Your task to perform on an android device: Open ESPN.com Image 0: 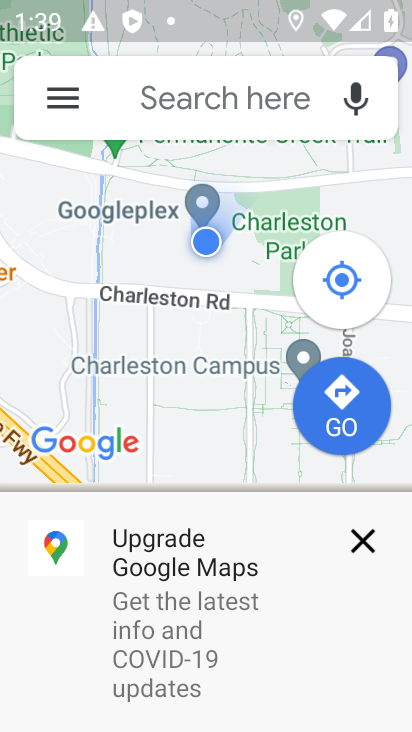
Step 0: press home button
Your task to perform on an android device: Open ESPN.com Image 1: 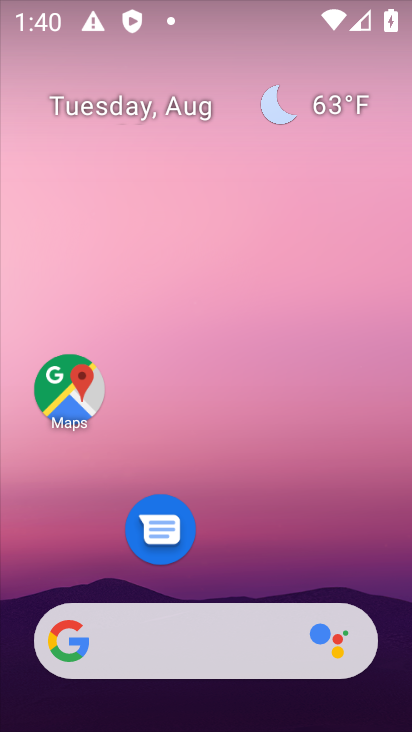
Step 1: drag from (297, 563) to (292, 16)
Your task to perform on an android device: Open ESPN.com Image 2: 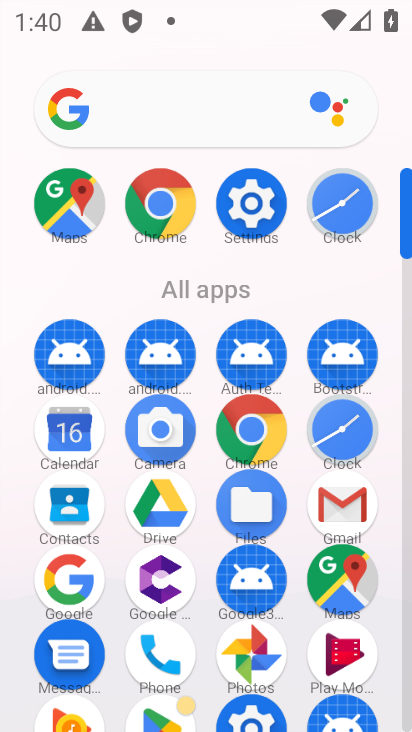
Step 2: click (161, 164)
Your task to perform on an android device: Open ESPN.com Image 3: 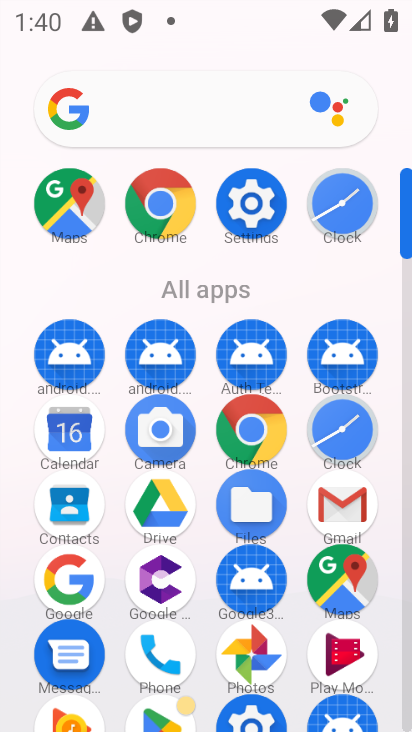
Step 3: click (161, 184)
Your task to perform on an android device: Open ESPN.com Image 4: 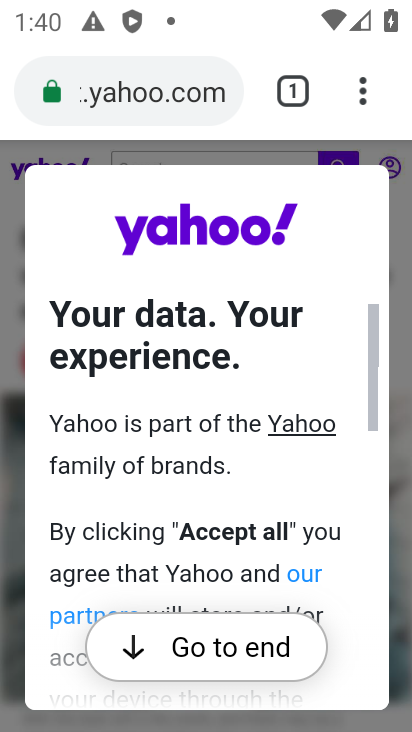
Step 4: click (228, 92)
Your task to perform on an android device: Open ESPN.com Image 5: 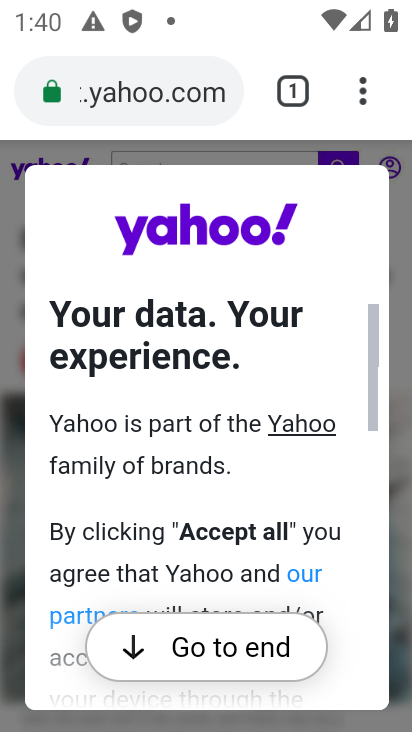
Step 5: click (150, 76)
Your task to perform on an android device: Open ESPN.com Image 6: 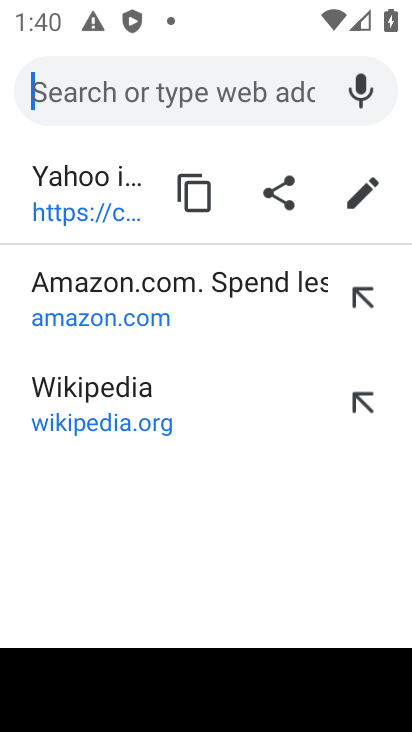
Step 6: type "espn.com"
Your task to perform on an android device: Open ESPN.com Image 7: 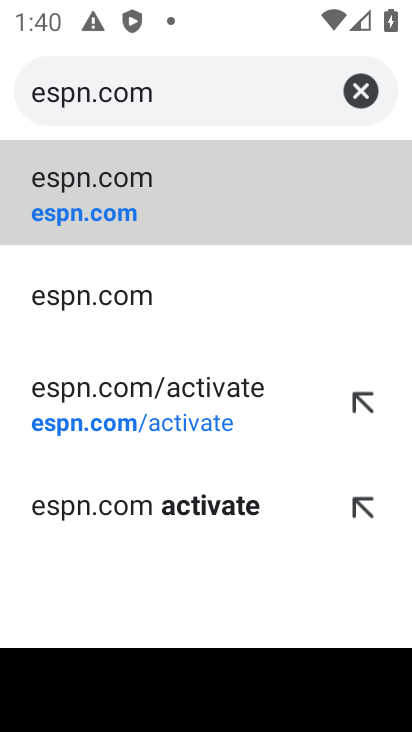
Step 7: click (179, 184)
Your task to perform on an android device: Open ESPN.com Image 8: 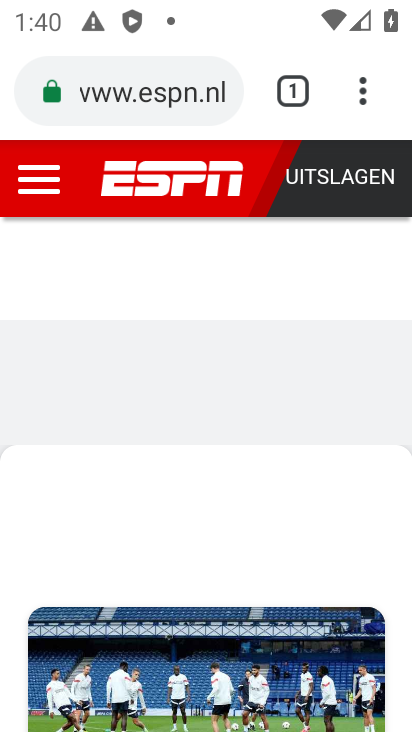
Step 8: task complete